Your task to perform on an android device: Go to Amazon Image 0: 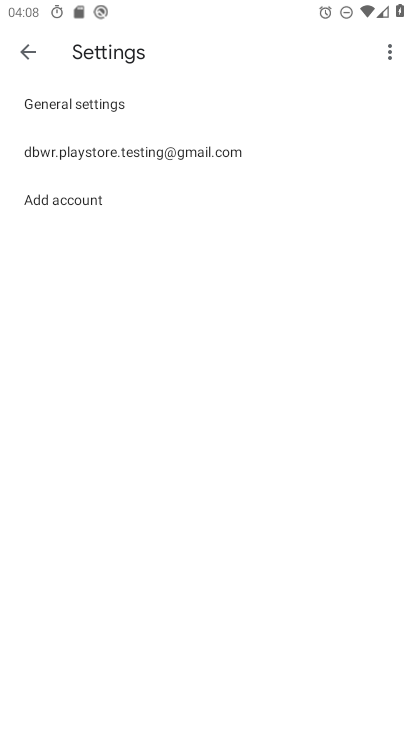
Step 0: press home button
Your task to perform on an android device: Go to Amazon Image 1: 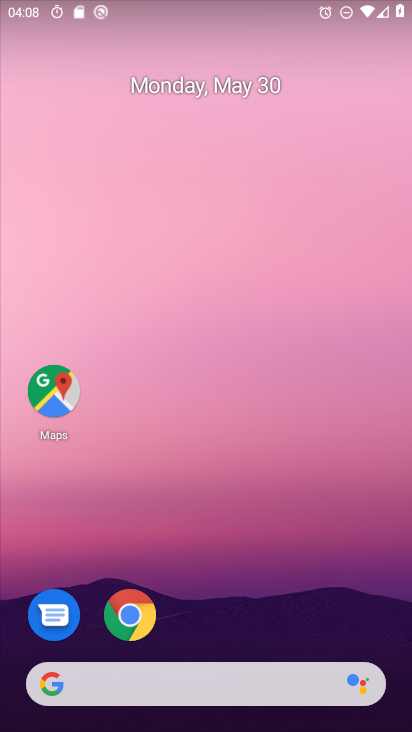
Step 1: click (129, 615)
Your task to perform on an android device: Go to Amazon Image 2: 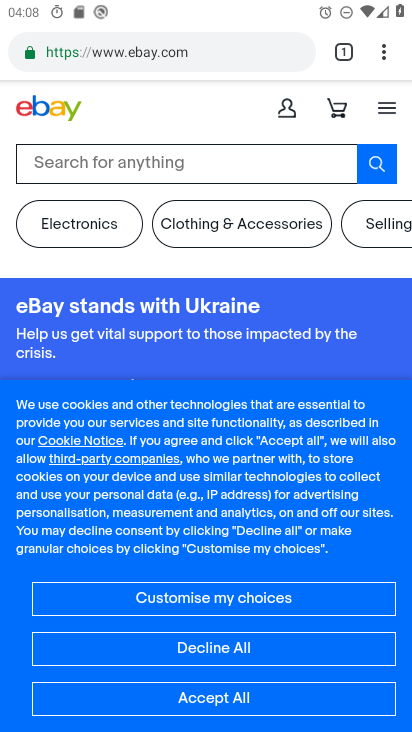
Step 2: click (261, 50)
Your task to perform on an android device: Go to Amazon Image 3: 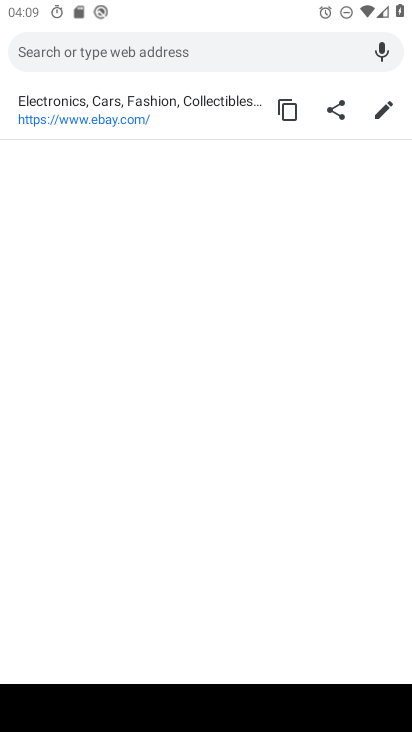
Step 3: type "Amazon"
Your task to perform on an android device: Go to Amazon Image 4: 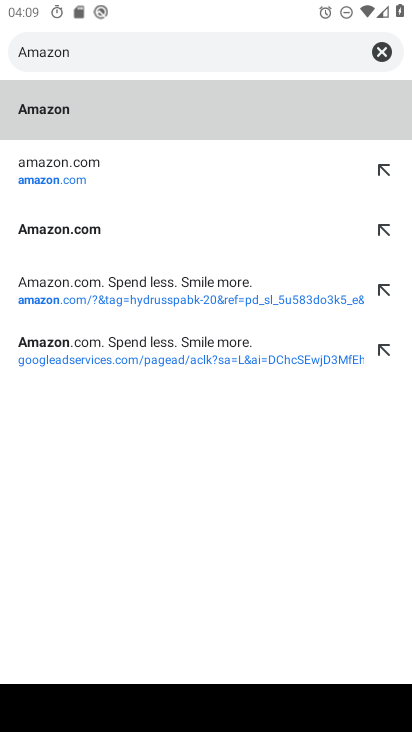
Step 4: click (80, 112)
Your task to perform on an android device: Go to Amazon Image 5: 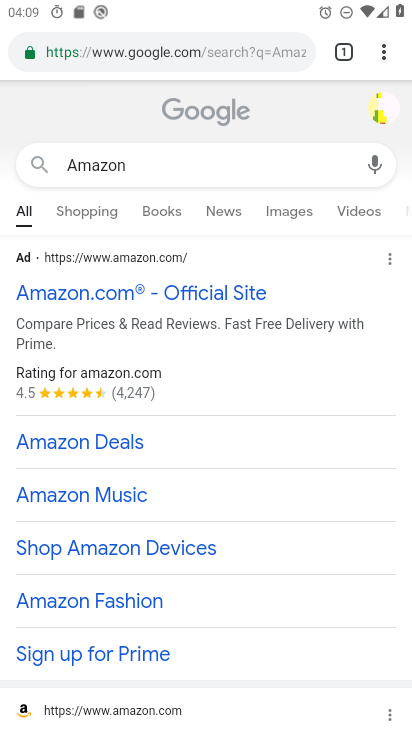
Step 5: click (201, 304)
Your task to perform on an android device: Go to Amazon Image 6: 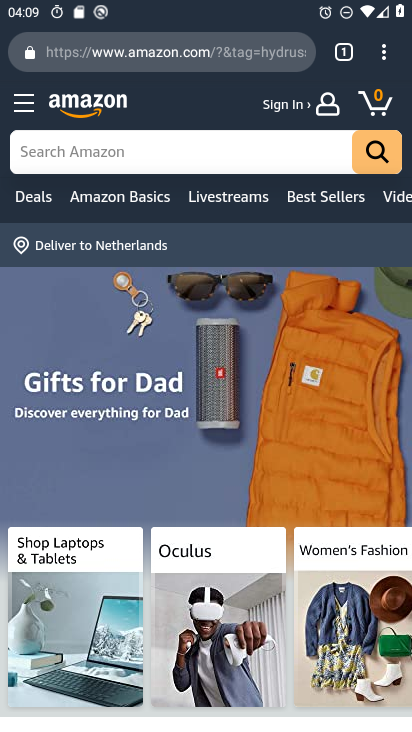
Step 6: task complete